Your task to perform on an android device: make emails show in primary in the gmail app Image 0: 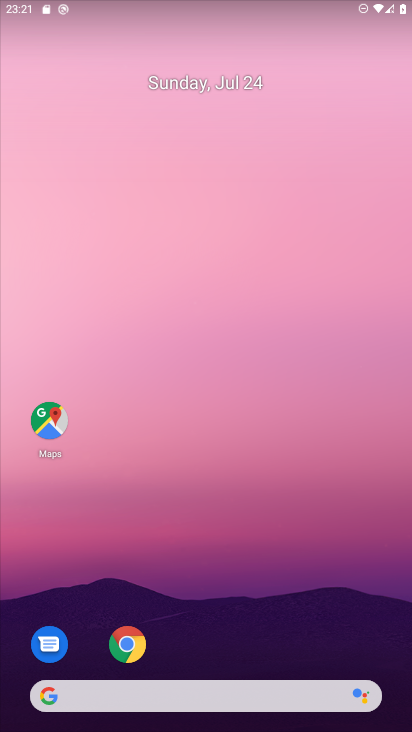
Step 0: drag from (367, 643) to (334, 90)
Your task to perform on an android device: make emails show in primary in the gmail app Image 1: 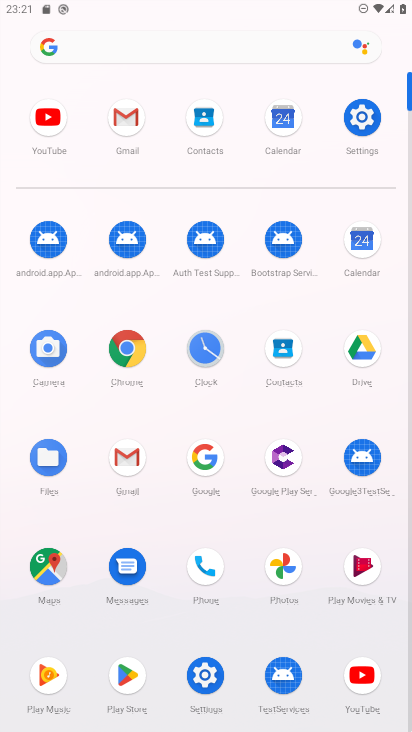
Step 1: click (125, 459)
Your task to perform on an android device: make emails show in primary in the gmail app Image 2: 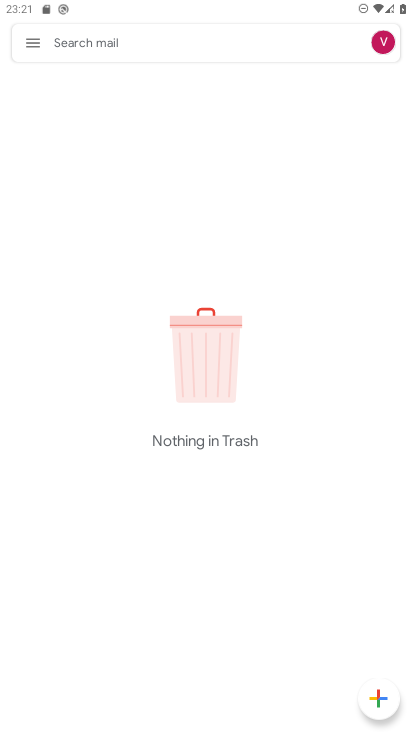
Step 2: click (32, 47)
Your task to perform on an android device: make emails show in primary in the gmail app Image 3: 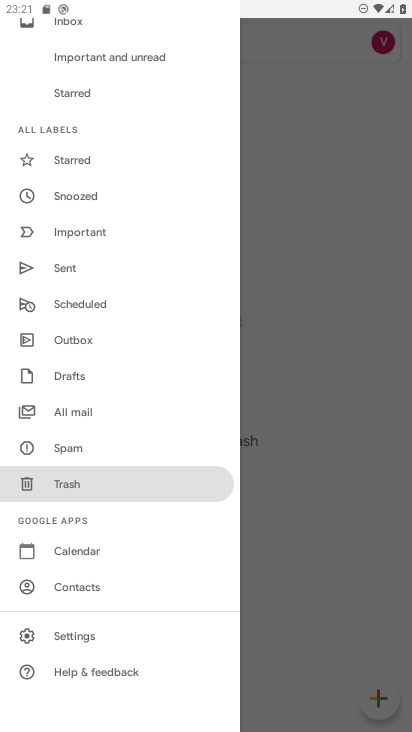
Step 3: click (67, 639)
Your task to perform on an android device: make emails show in primary in the gmail app Image 4: 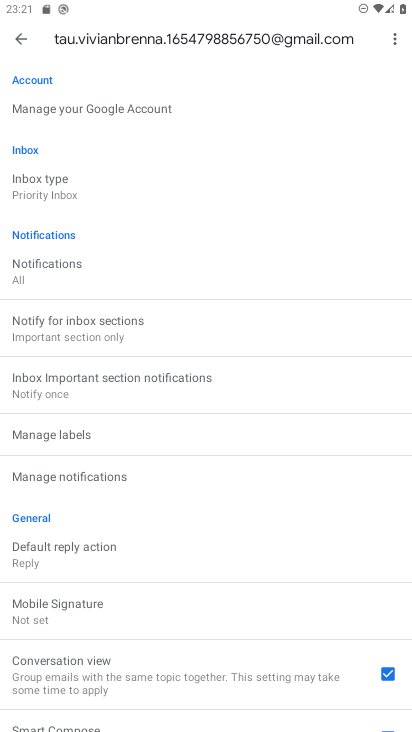
Step 4: click (41, 187)
Your task to perform on an android device: make emails show in primary in the gmail app Image 5: 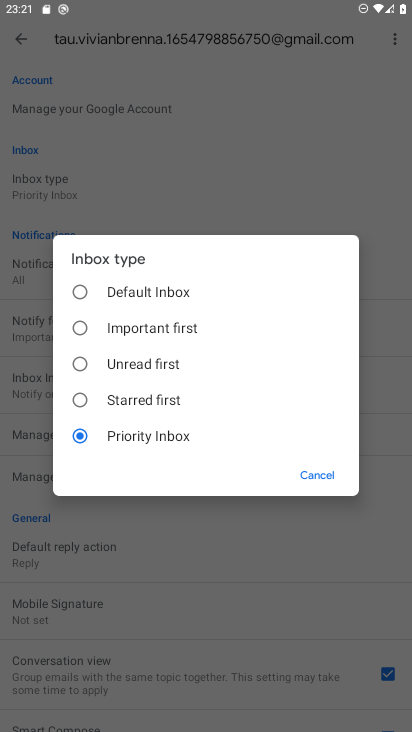
Step 5: click (77, 290)
Your task to perform on an android device: make emails show in primary in the gmail app Image 6: 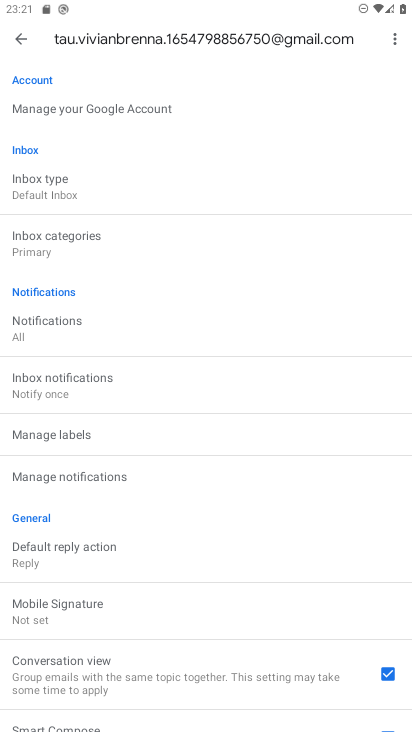
Step 6: click (39, 243)
Your task to perform on an android device: make emails show in primary in the gmail app Image 7: 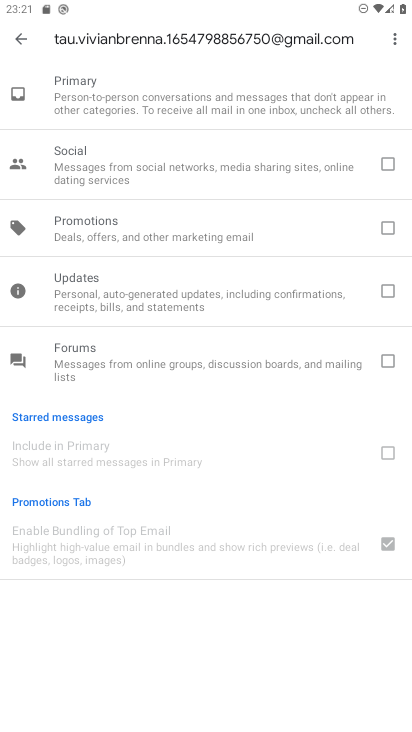
Step 7: task complete